Your task to perform on an android device: Search for pizza restaurants on Maps Image 0: 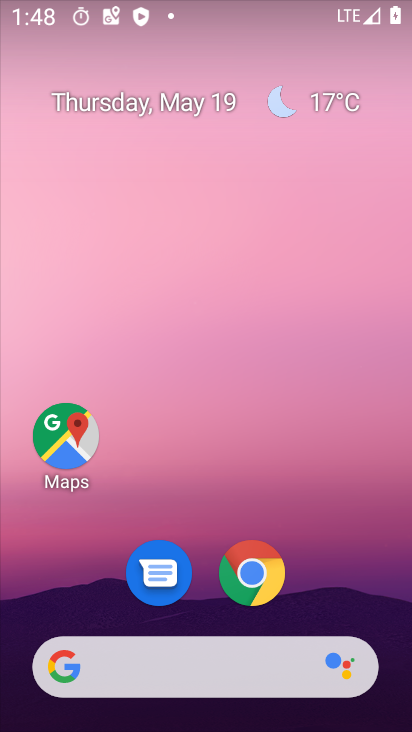
Step 0: click (73, 448)
Your task to perform on an android device: Search for pizza restaurants on Maps Image 1: 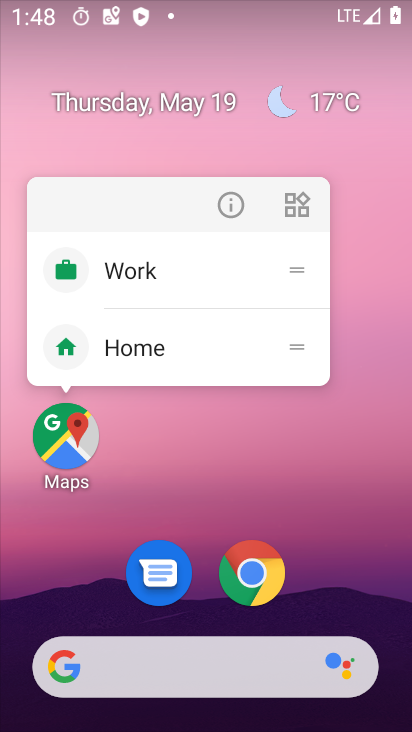
Step 1: click (70, 446)
Your task to perform on an android device: Search for pizza restaurants on Maps Image 2: 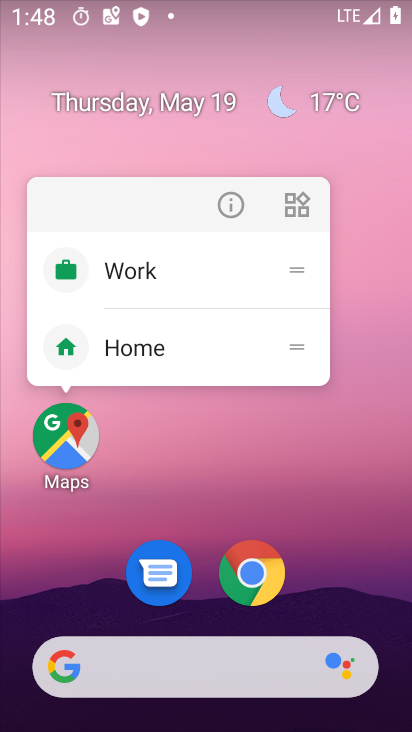
Step 2: click (57, 420)
Your task to perform on an android device: Search for pizza restaurants on Maps Image 3: 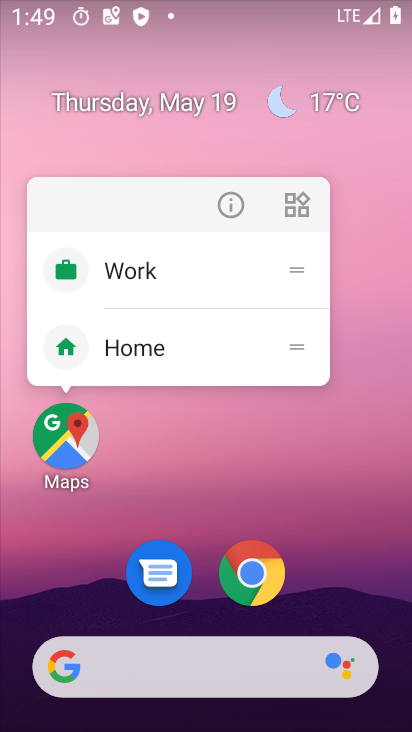
Step 3: click (65, 437)
Your task to perform on an android device: Search for pizza restaurants on Maps Image 4: 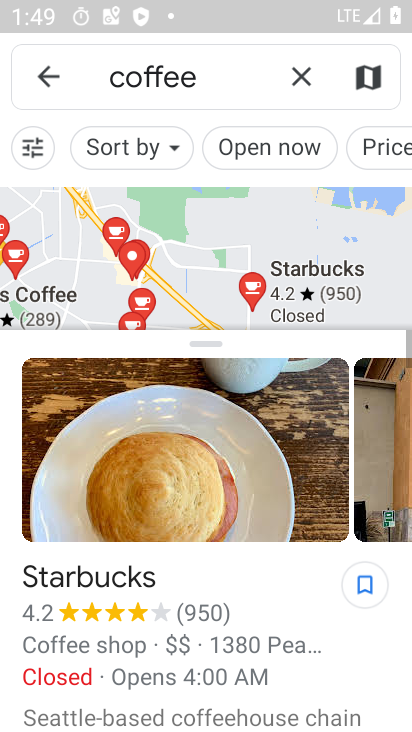
Step 4: click (299, 64)
Your task to perform on an android device: Search for pizza restaurants on Maps Image 5: 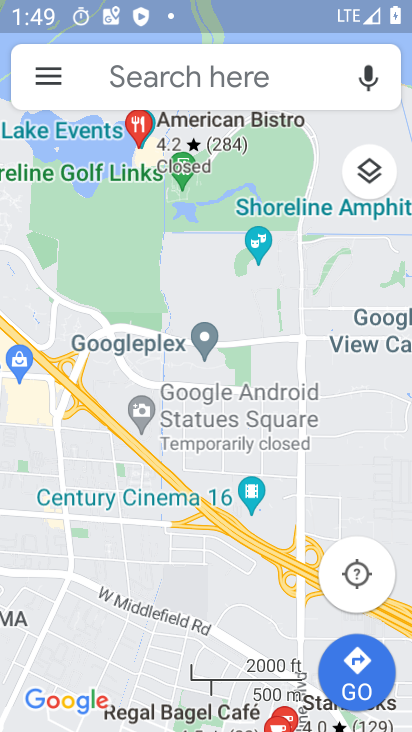
Step 5: click (192, 73)
Your task to perform on an android device: Search for pizza restaurants on Maps Image 6: 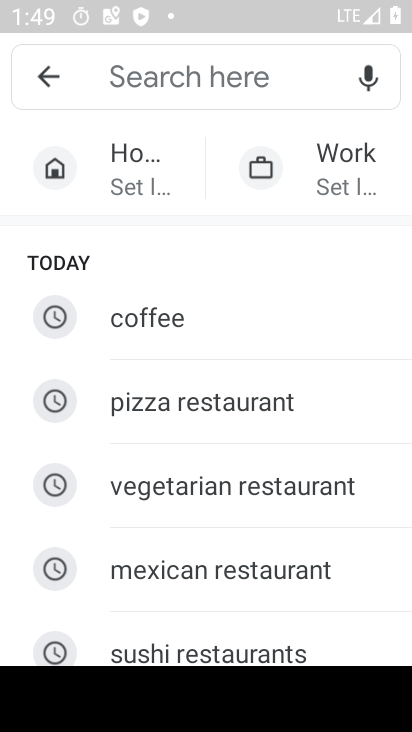
Step 6: click (234, 400)
Your task to perform on an android device: Search for pizza restaurants on Maps Image 7: 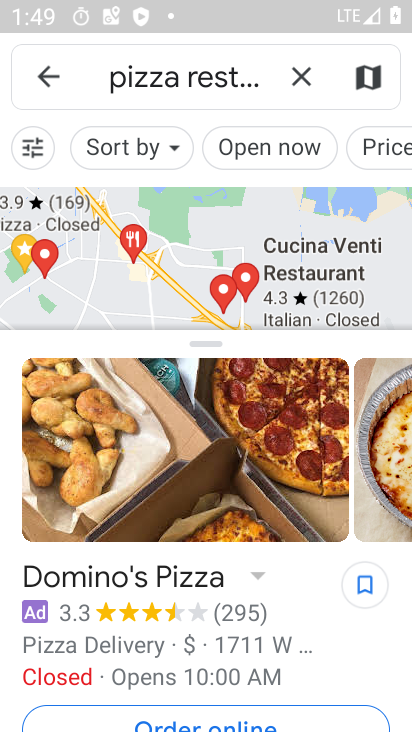
Step 7: task complete